Your task to perform on an android device: clear history in the chrome app Image 0: 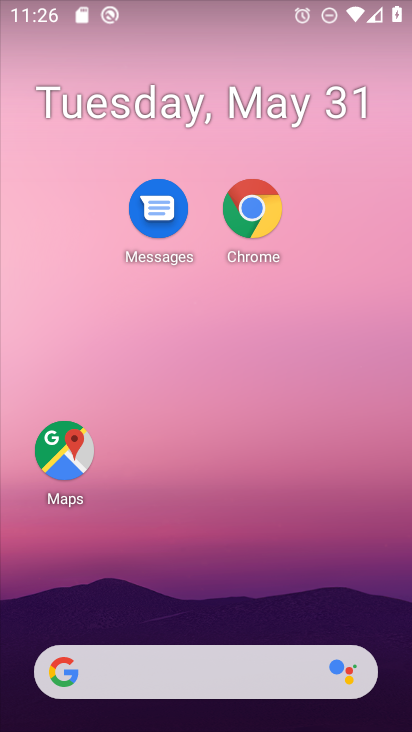
Step 0: click (252, 201)
Your task to perform on an android device: clear history in the chrome app Image 1: 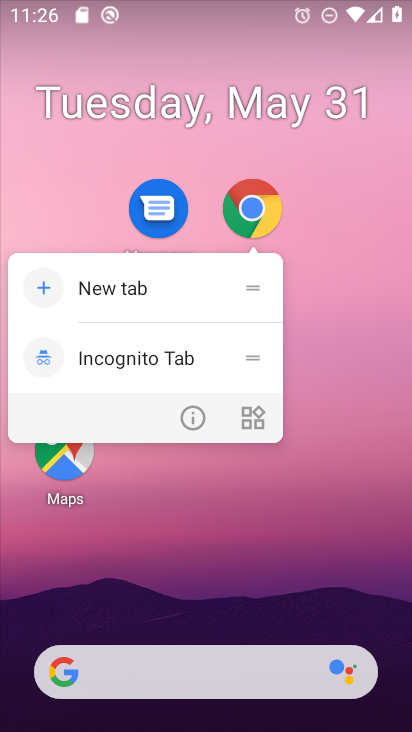
Step 1: click (252, 201)
Your task to perform on an android device: clear history in the chrome app Image 2: 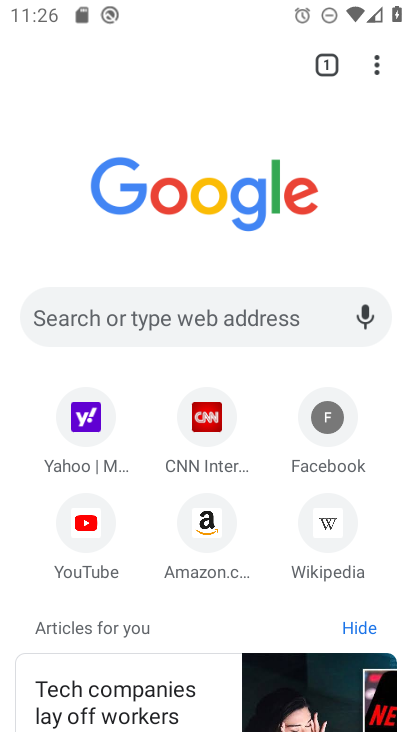
Step 2: click (377, 62)
Your task to perform on an android device: clear history in the chrome app Image 3: 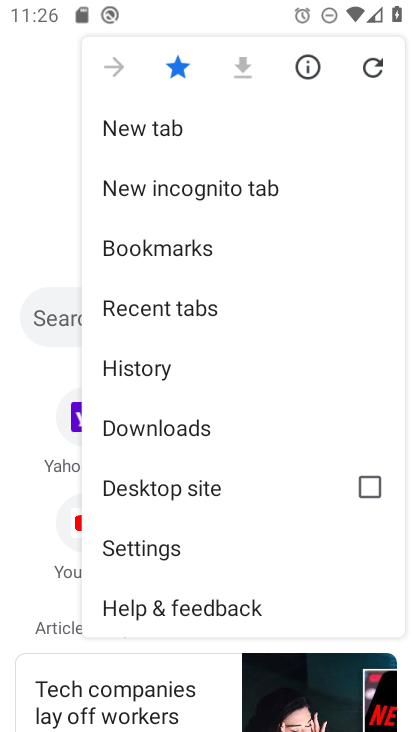
Step 3: click (184, 366)
Your task to perform on an android device: clear history in the chrome app Image 4: 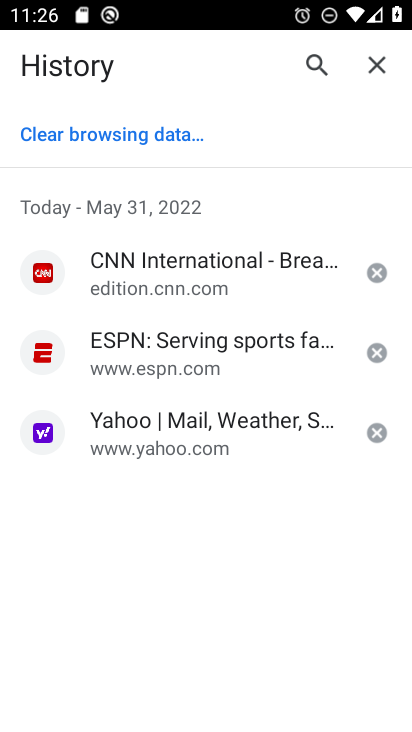
Step 4: click (99, 131)
Your task to perform on an android device: clear history in the chrome app Image 5: 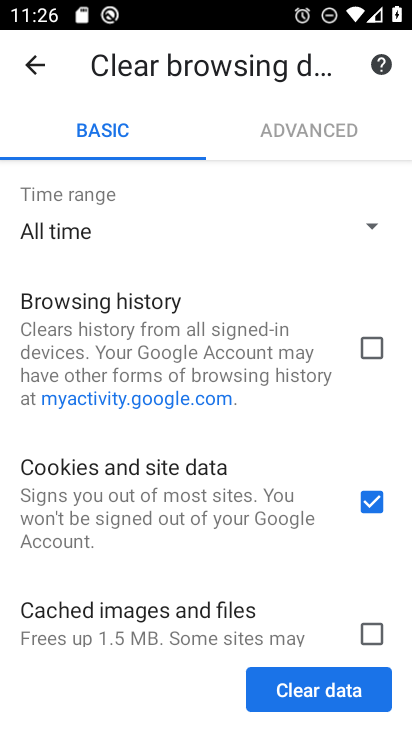
Step 5: click (361, 347)
Your task to perform on an android device: clear history in the chrome app Image 6: 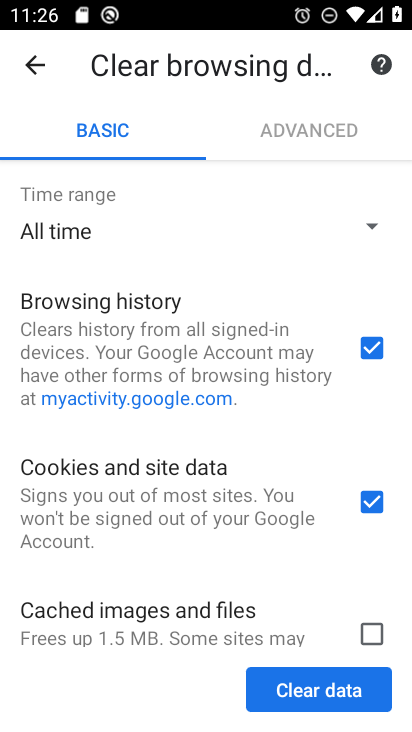
Step 6: click (377, 630)
Your task to perform on an android device: clear history in the chrome app Image 7: 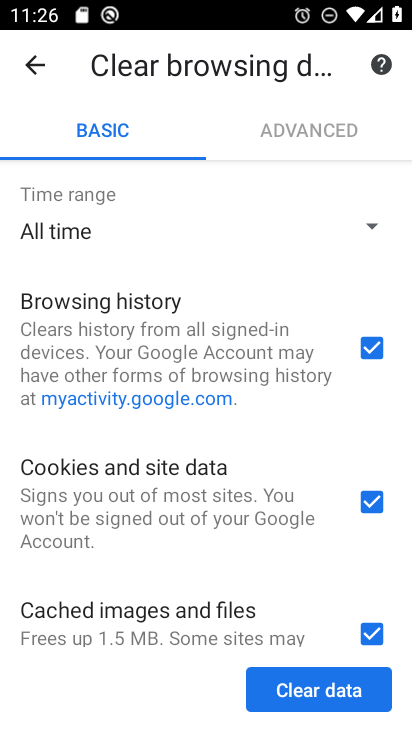
Step 7: click (321, 684)
Your task to perform on an android device: clear history in the chrome app Image 8: 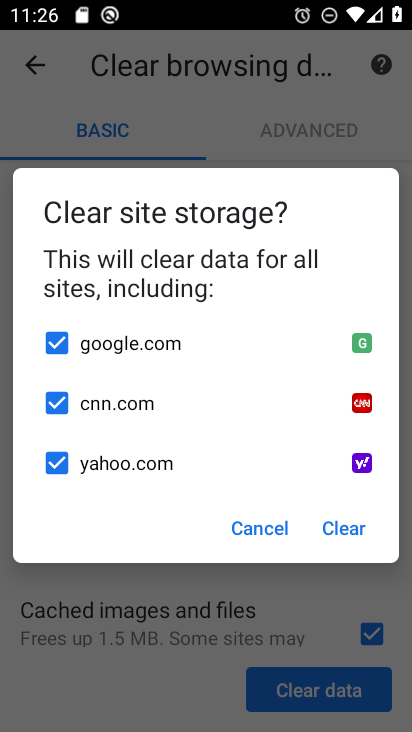
Step 8: click (345, 530)
Your task to perform on an android device: clear history in the chrome app Image 9: 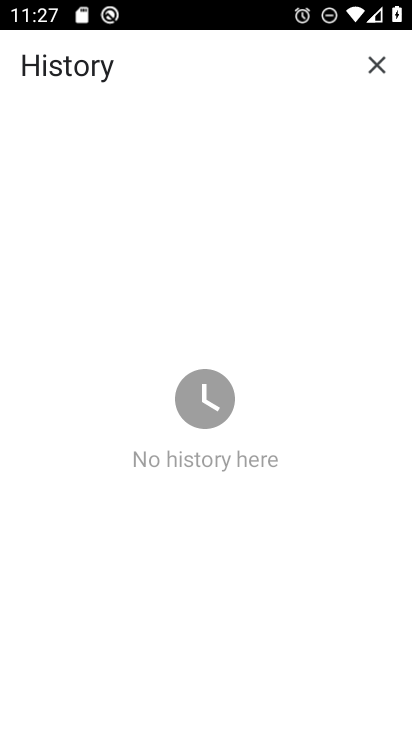
Step 9: task complete